Your task to perform on an android device: open app "Pandora - Music & Podcasts" Image 0: 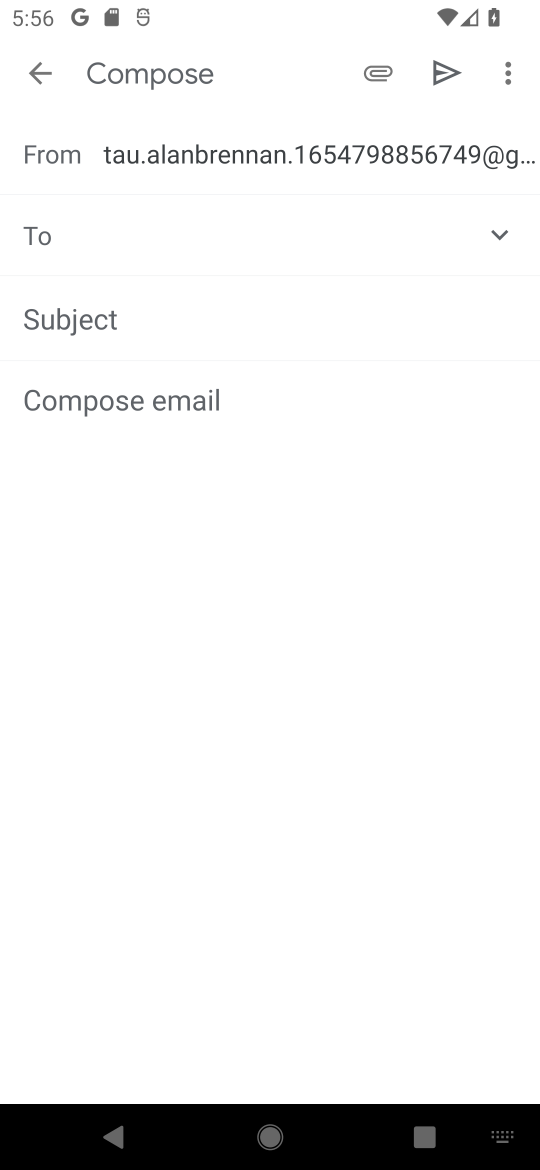
Step 0: press home button
Your task to perform on an android device: open app "Pandora - Music & Podcasts" Image 1: 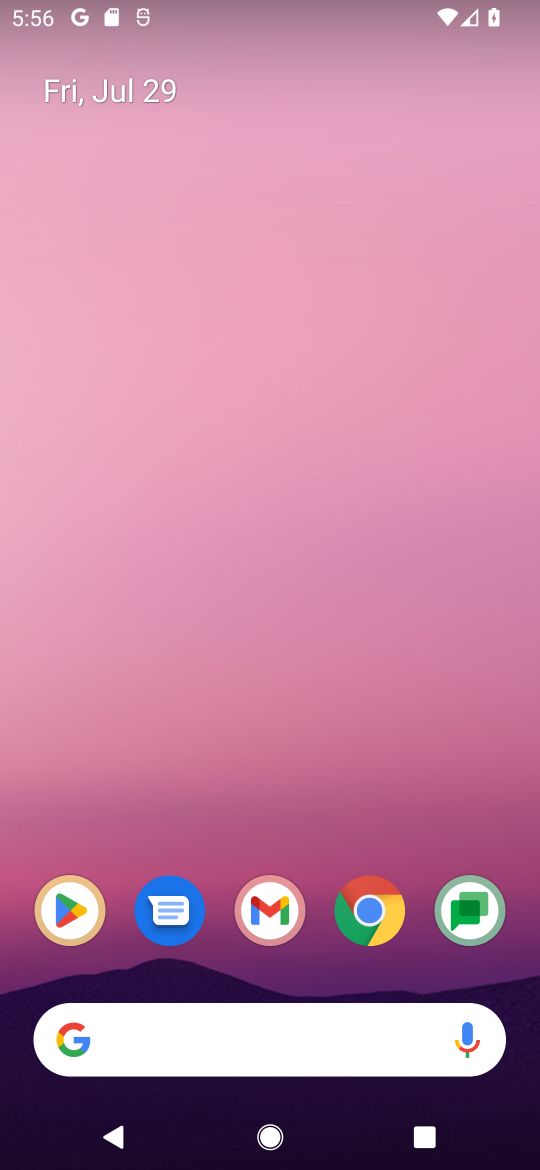
Step 1: click (70, 923)
Your task to perform on an android device: open app "Pandora - Music & Podcasts" Image 2: 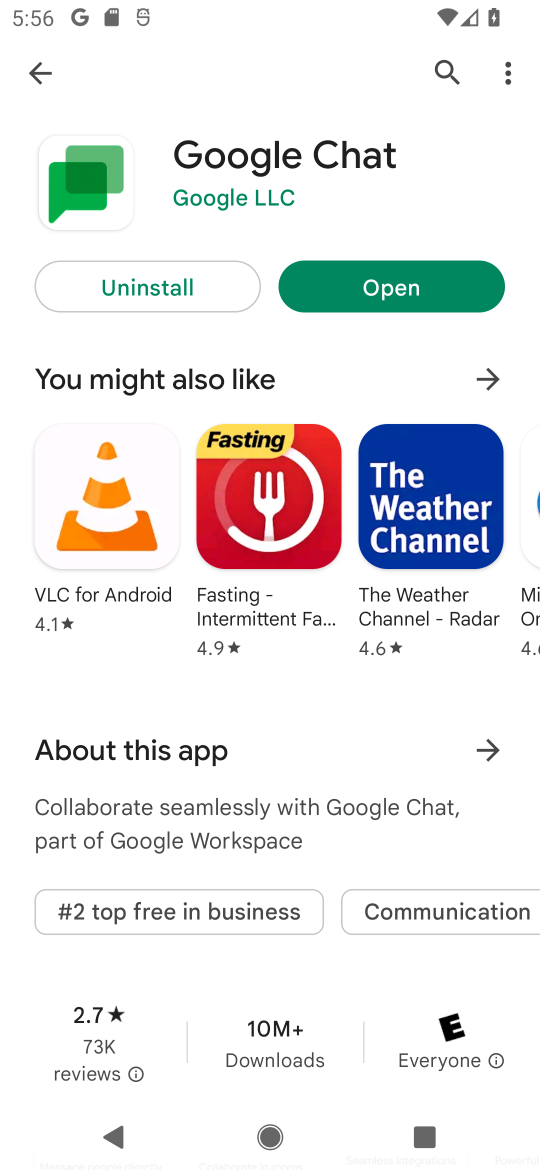
Step 2: click (439, 68)
Your task to perform on an android device: open app "Pandora - Music & Podcasts" Image 3: 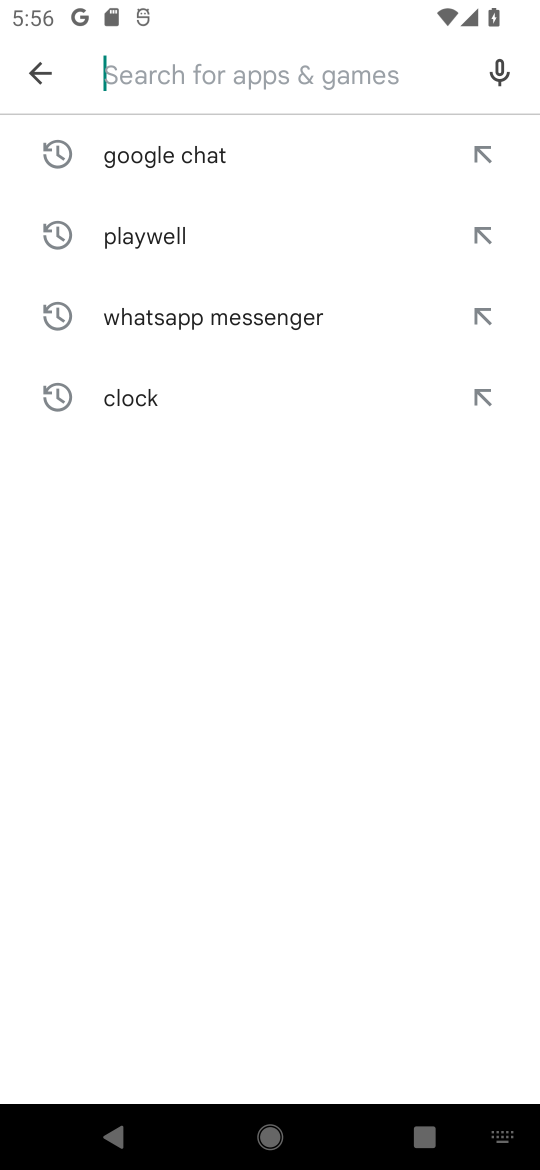
Step 3: type "pandora - music & podcasts"
Your task to perform on an android device: open app "Pandora - Music & Podcasts" Image 4: 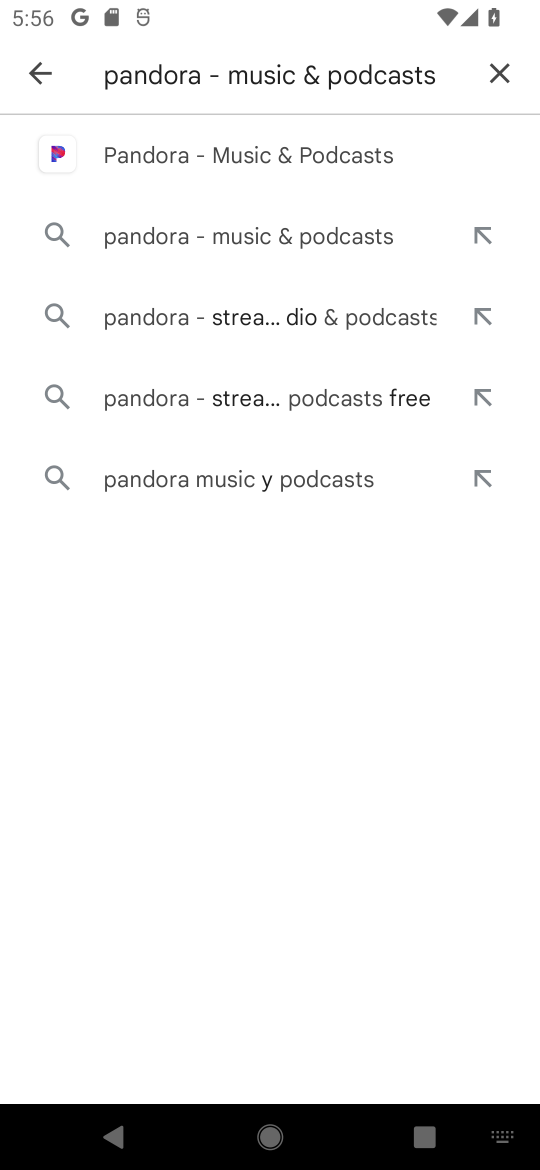
Step 4: click (354, 141)
Your task to perform on an android device: open app "Pandora - Music & Podcasts" Image 5: 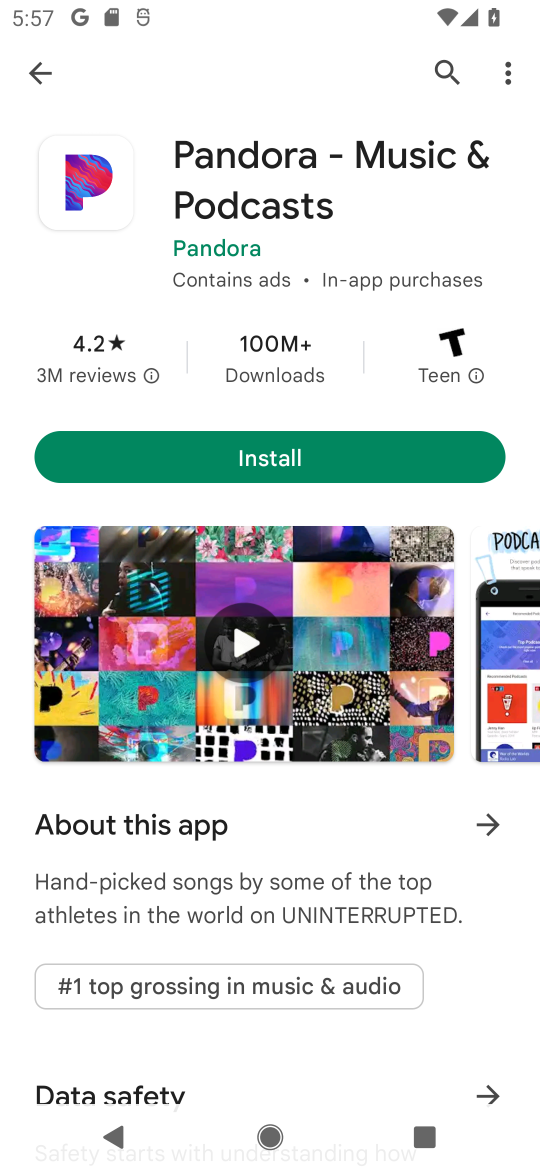
Step 5: task complete